Your task to perform on an android device: Clear the shopping cart on target. Search for "sony triple a" on target, select the first entry, add it to the cart, then select checkout. Image 0: 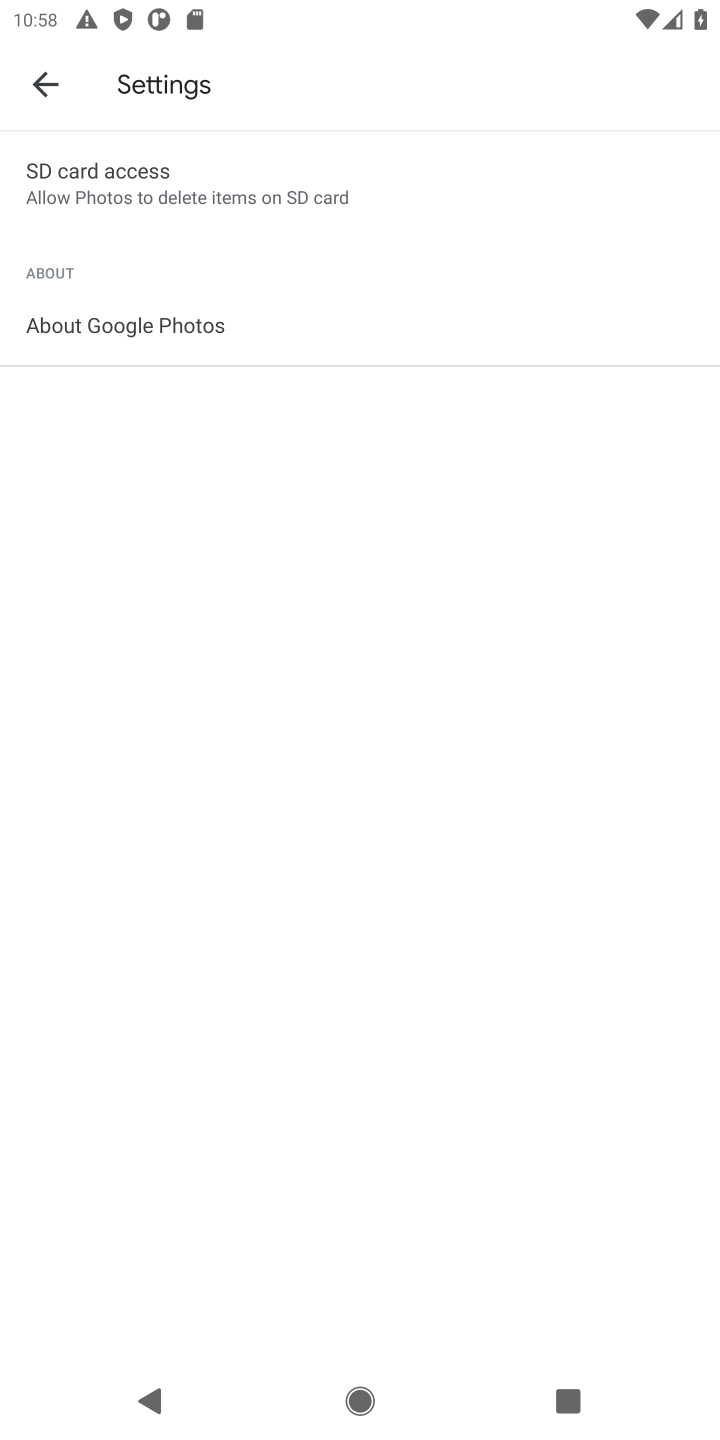
Step 0: press home button
Your task to perform on an android device: Clear the shopping cart on target. Search for "sony triple a" on target, select the first entry, add it to the cart, then select checkout. Image 1: 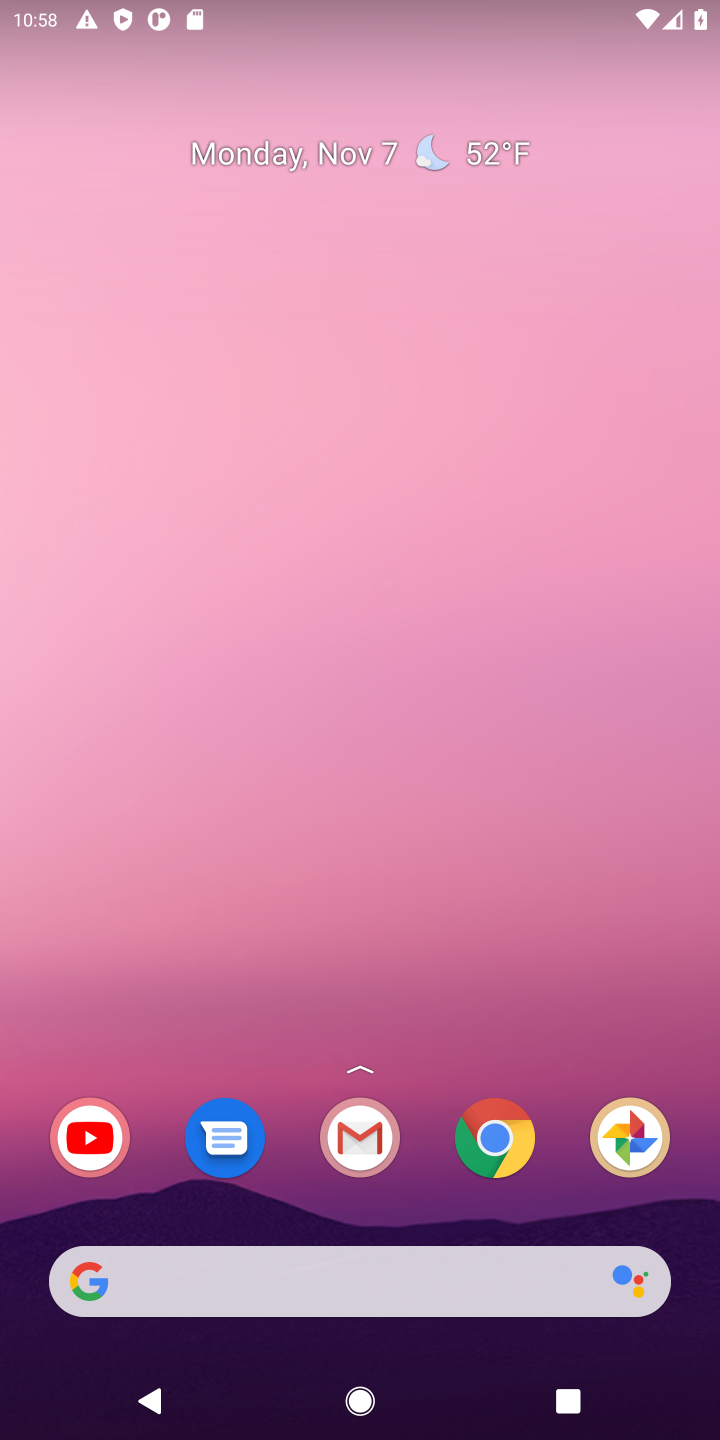
Step 1: click (516, 1157)
Your task to perform on an android device: Clear the shopping cart on target. Search for "sony triple a" on target, select the first entry, add it to the cart, then select checkout. Image 2: 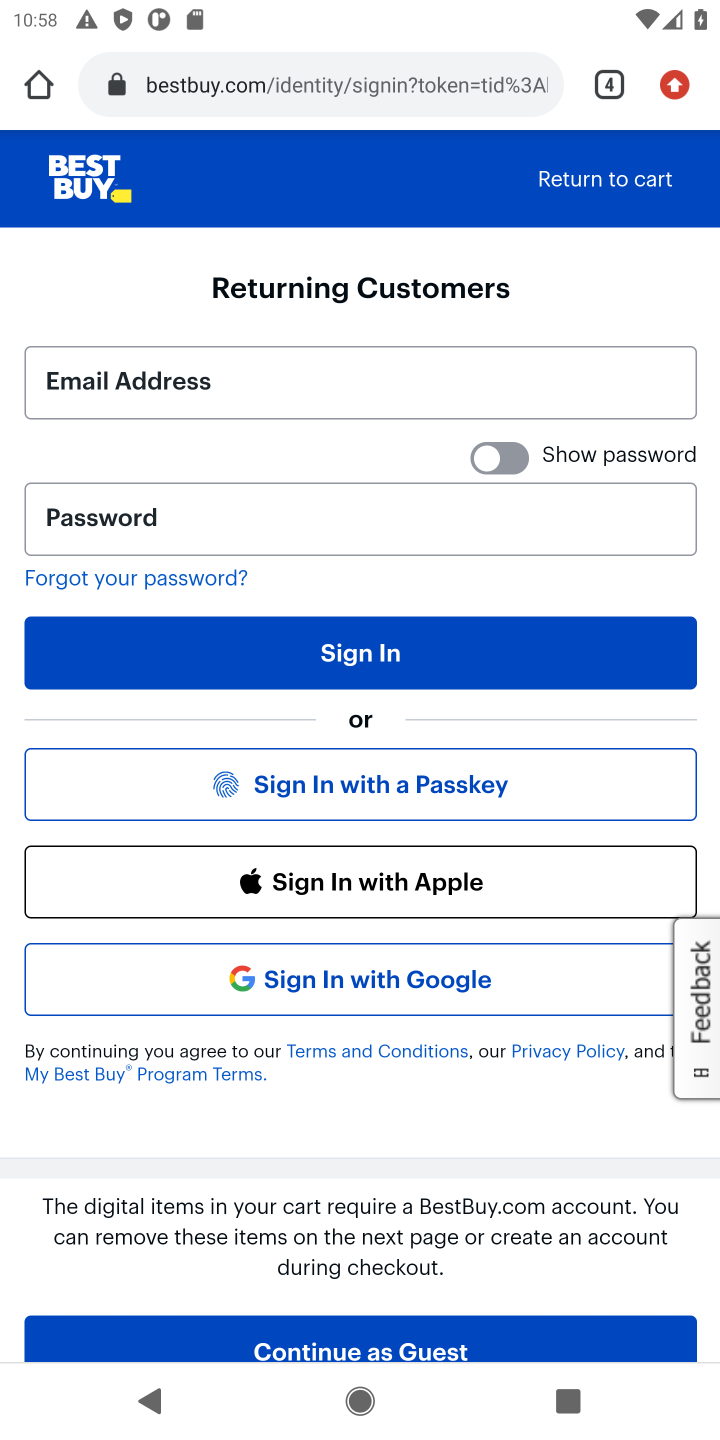
Step 2: click (328, 77)
Your task to perform on an android device: Clear the shopping cart on target. Search for "sony triple a" on target, select the first entry, add it to the cart, then select checkout. Image 3: 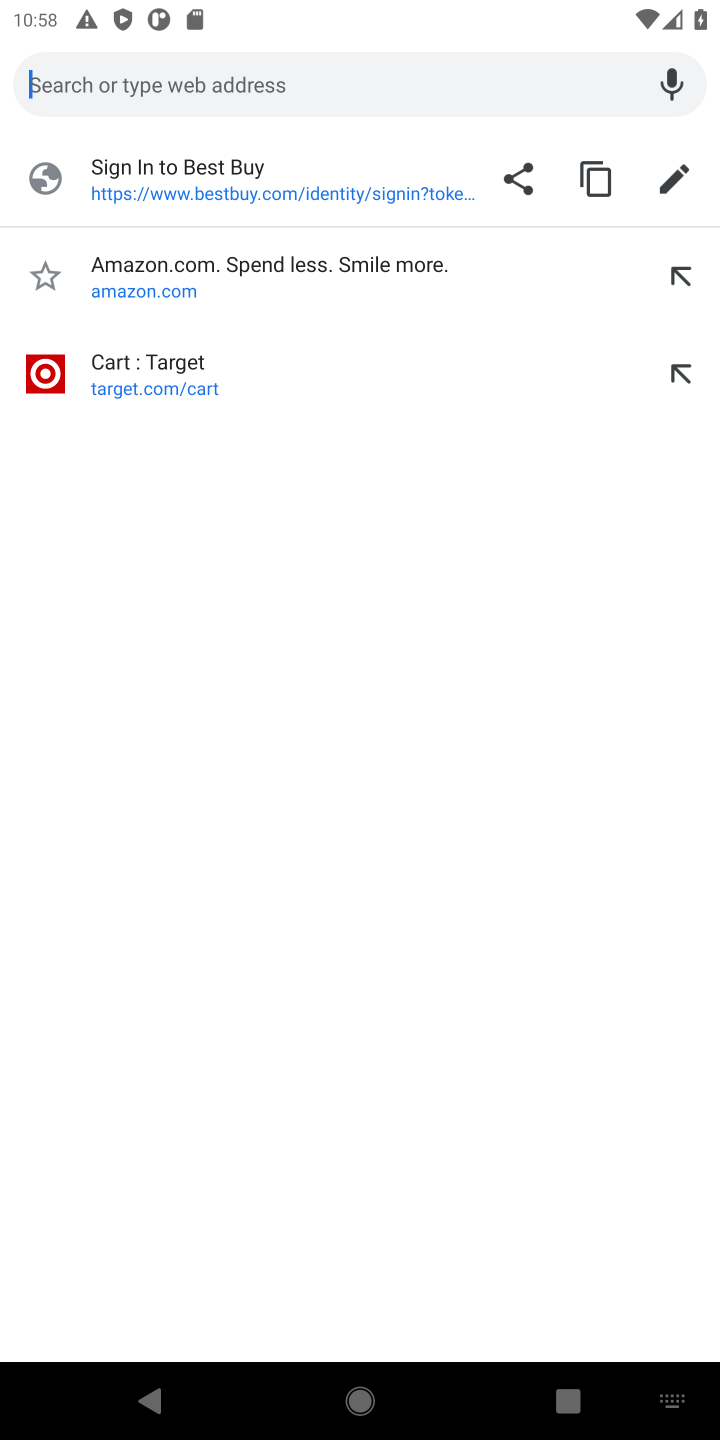
Step 3: click (166, 384)
Your task to perform on an android device: Clear the shopping cart on target. Search for "sony triple a" on target, select the first entry, add it to the cart, then select checkout. Image 4: 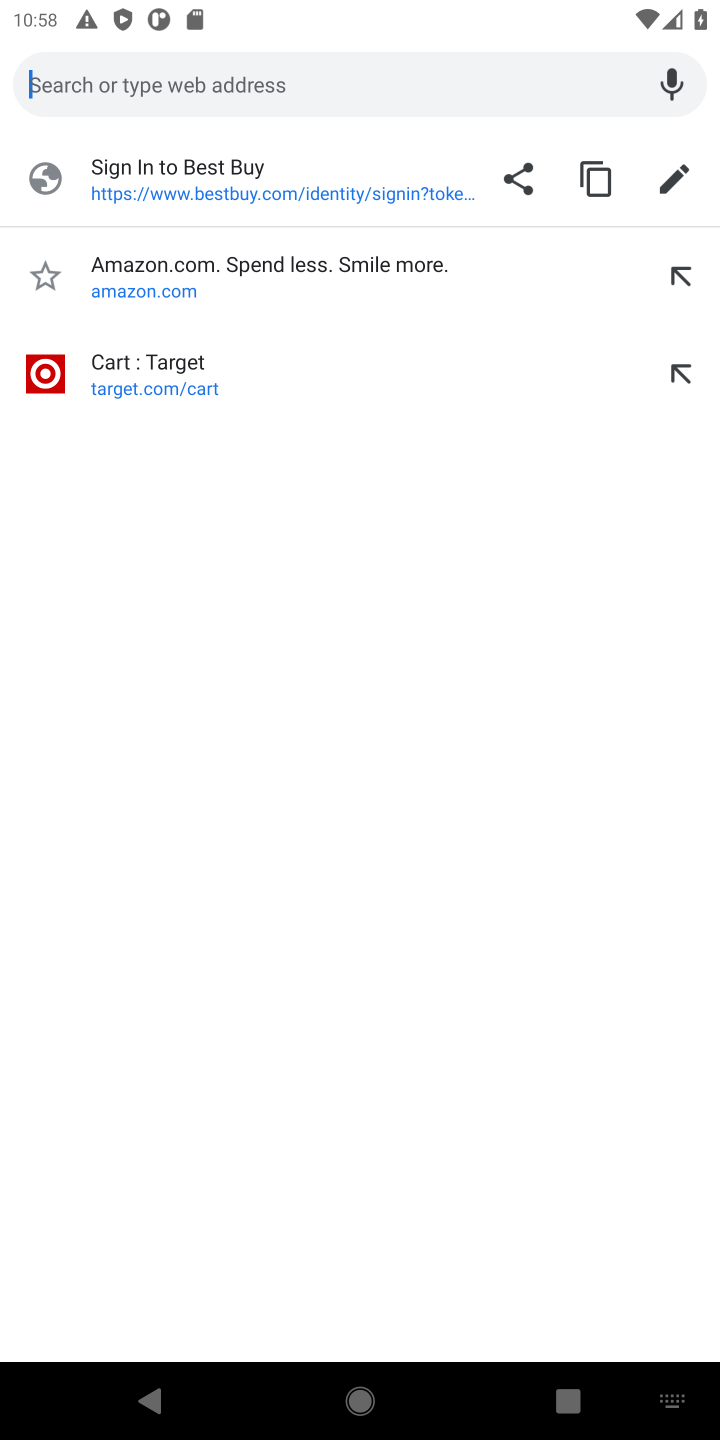
Step 4: type "target"
Your task to perform on an android device: Clear the shopping cart on target. Search for "sony triple a" on target, select the first entry, add it to the cart, then select checkout. Image 5: 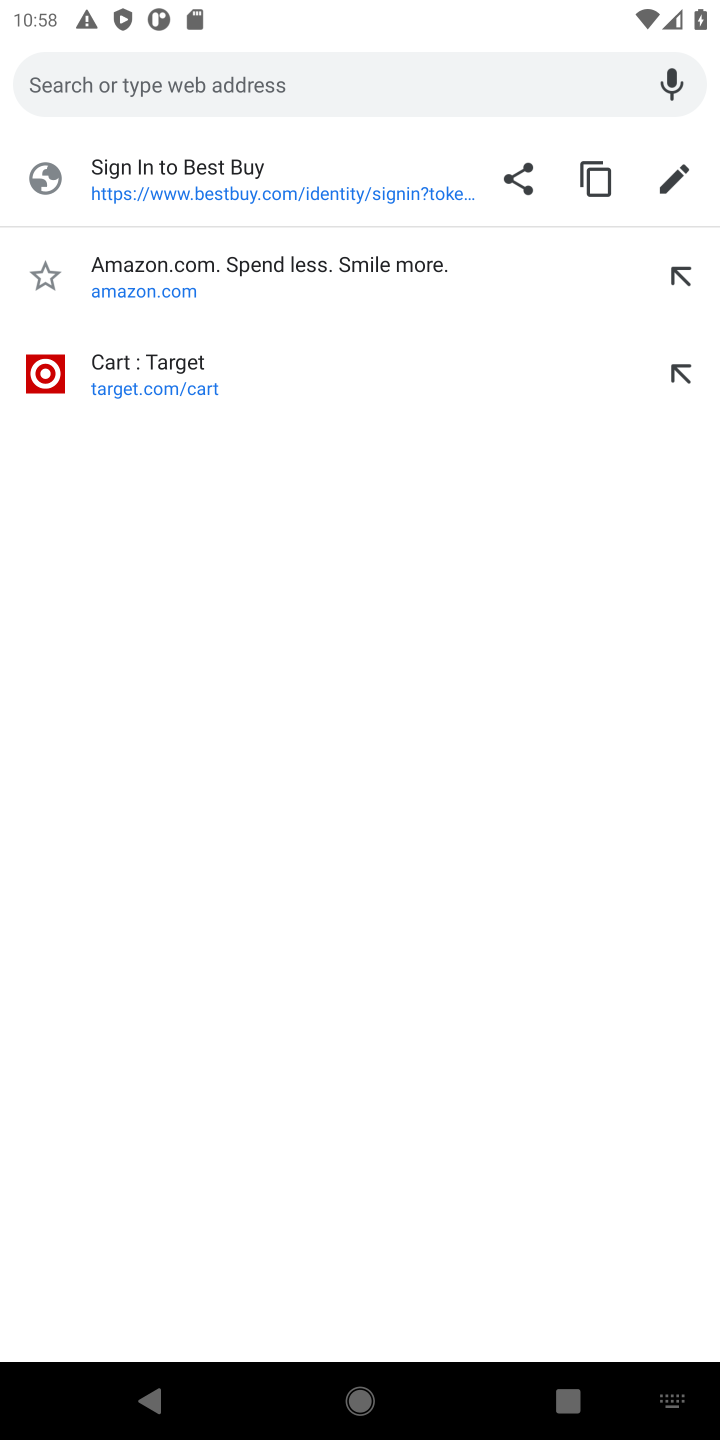
Step 5: click (166, 384)
Your task to perform on an android device: Clear the shopping cart on target. Search for "sony triple a" on target, select the first entry, add it to the cart, then select checkout. Image 6: 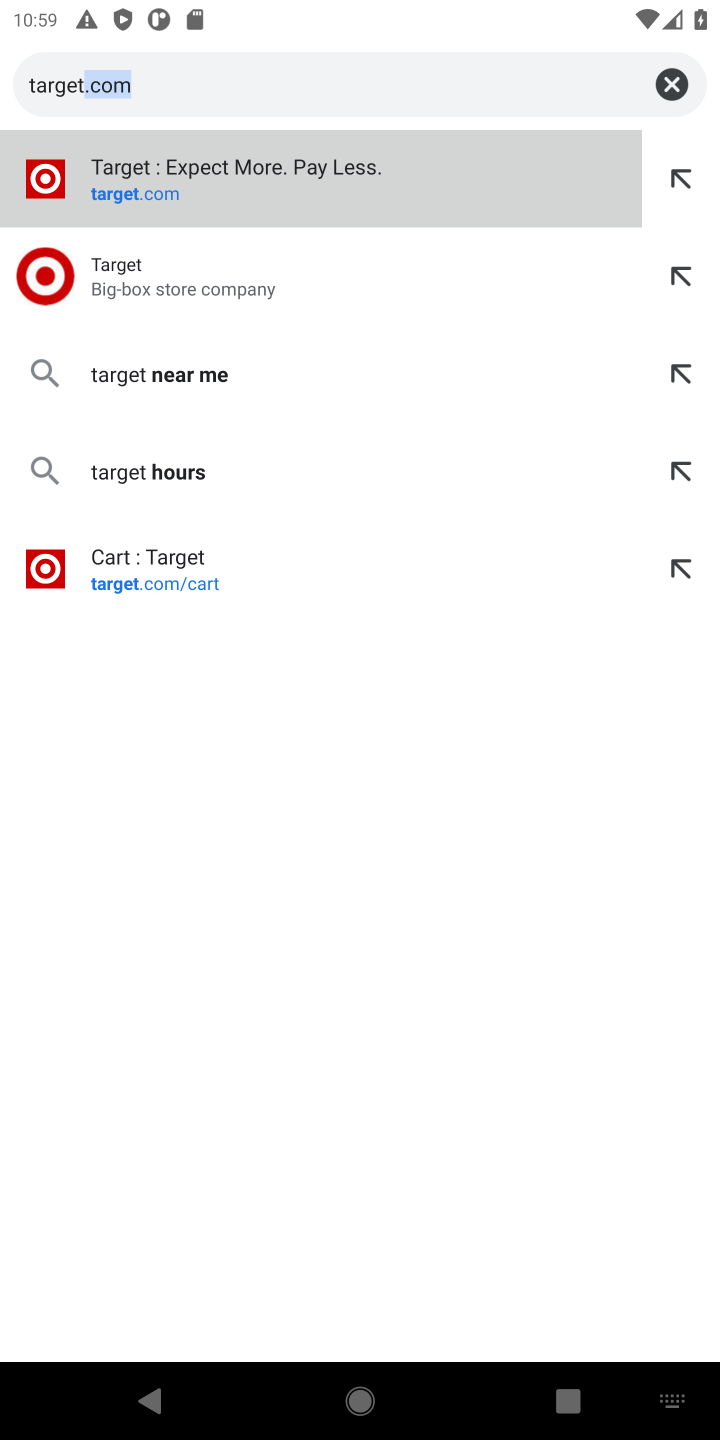
Step 6: click (119, 285)
Your task to perform on an android device: Clear the shopping cart on target. Search for "sony triple a" on target, select the first entry, add it to the cart, then select checkout. Image 7: 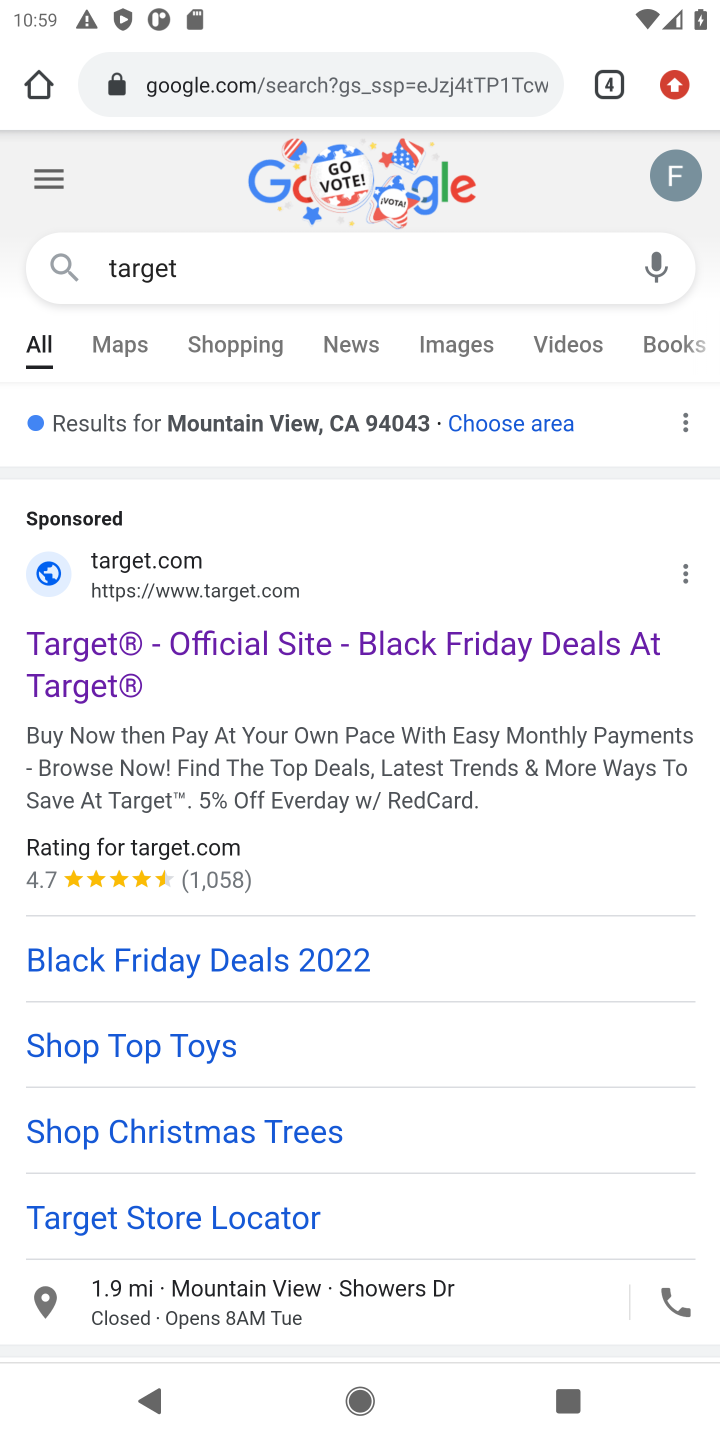
Step 7: drag from (274, 901) to (377, 284)
Your task to perform on an android device: Clear the shopping cart on target. Search for "sony triple a" on target, select the first entry, add it to the cart, then select checkout. Image 8: 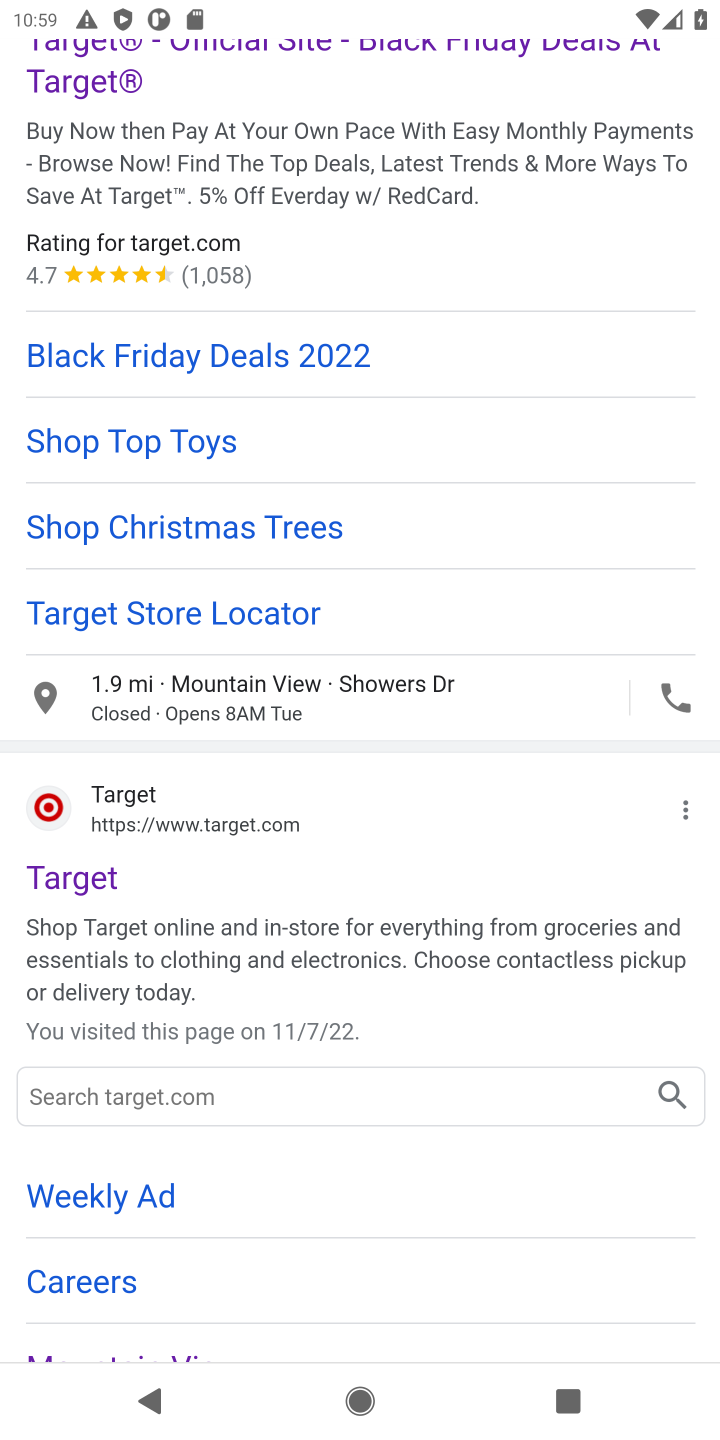
Step 8: click (94, 876)
Your task to perform on an android device: Clear the shopping cart on target. Search for "sony triple a" on target, select the first entry, add it to the cart, then select checkout. Image 9: 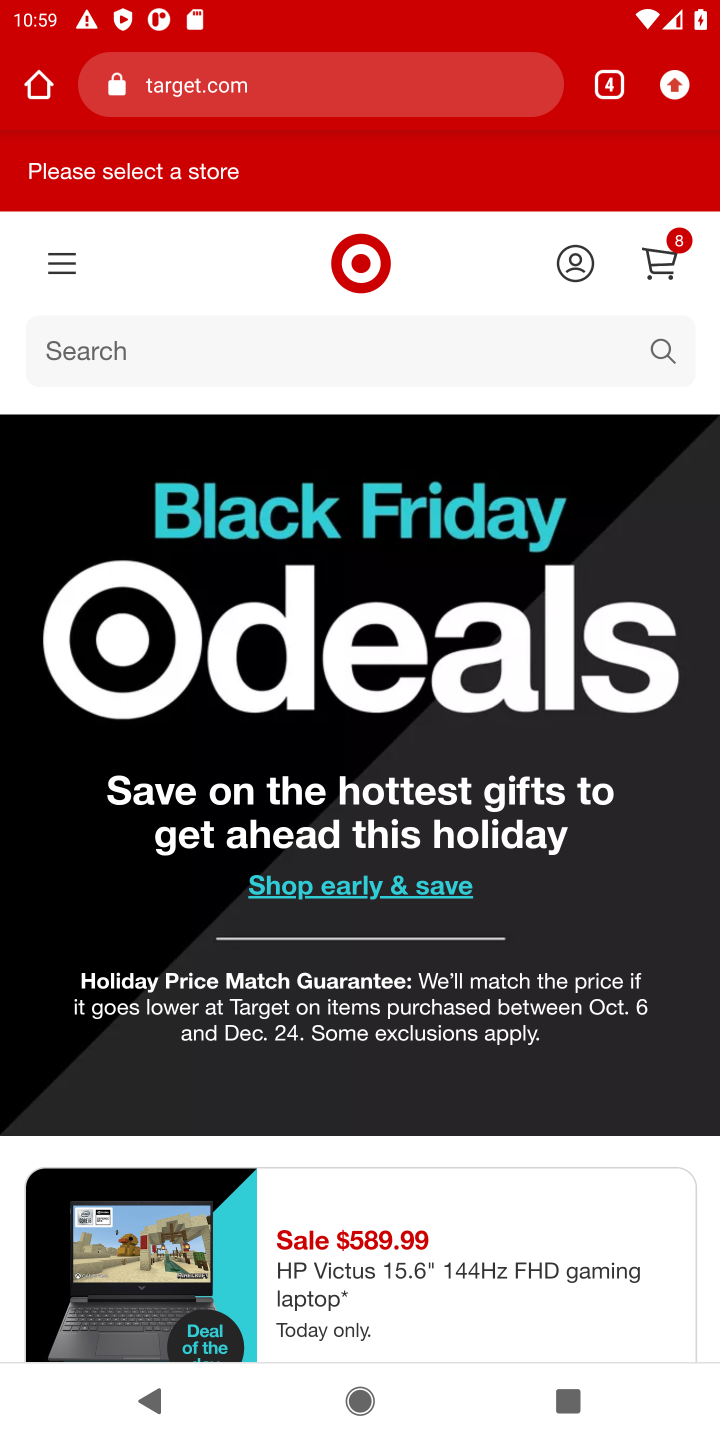
Step 9: click (184, 348)
Your task to perform on an android device: Clear the shopping cart on target. Search for "sony triple a" on target, select the first entry, add it to the cart, then select checkout. Image 10: 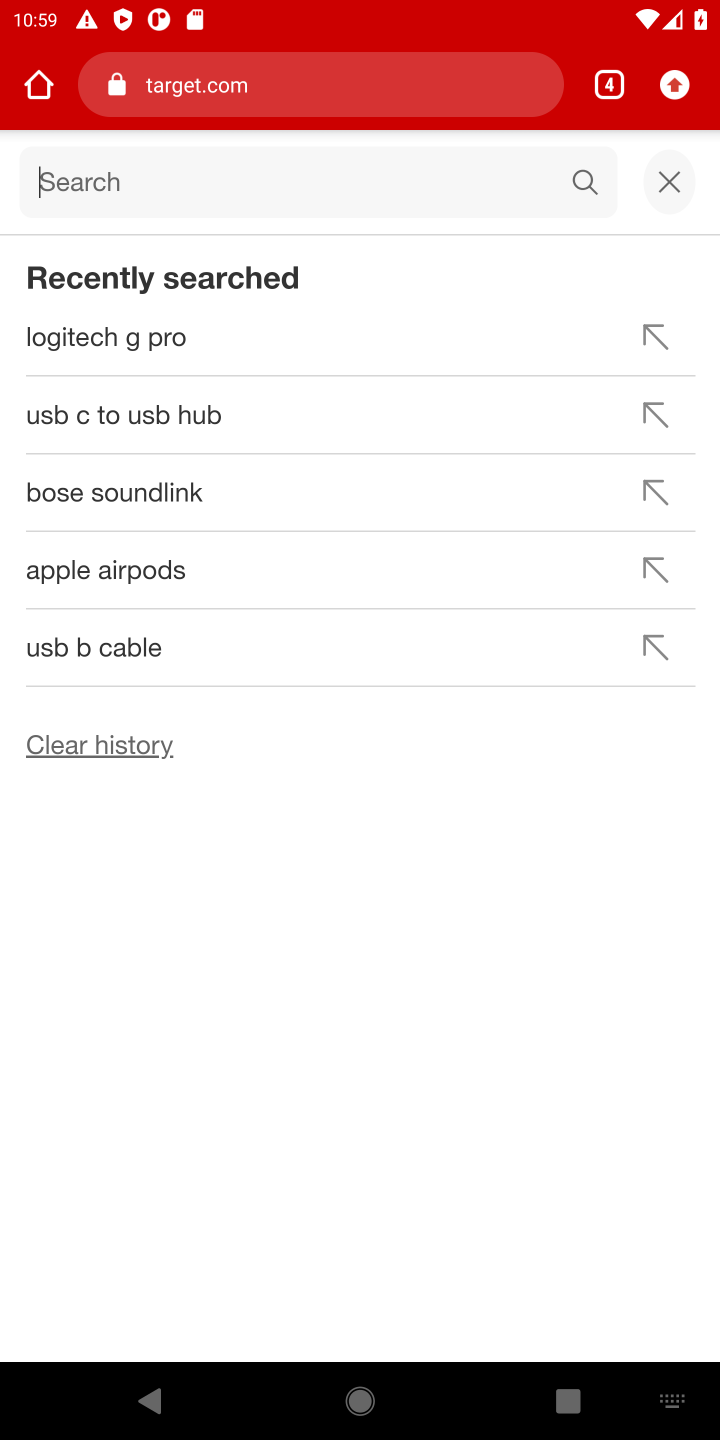
Step 10: type "sony triple"
Your task to perform on an android device: Clear the shopping cart on target. Search for "sony triple a" on target, select the first entry, add it to the cart, then select checkout. Image 11: 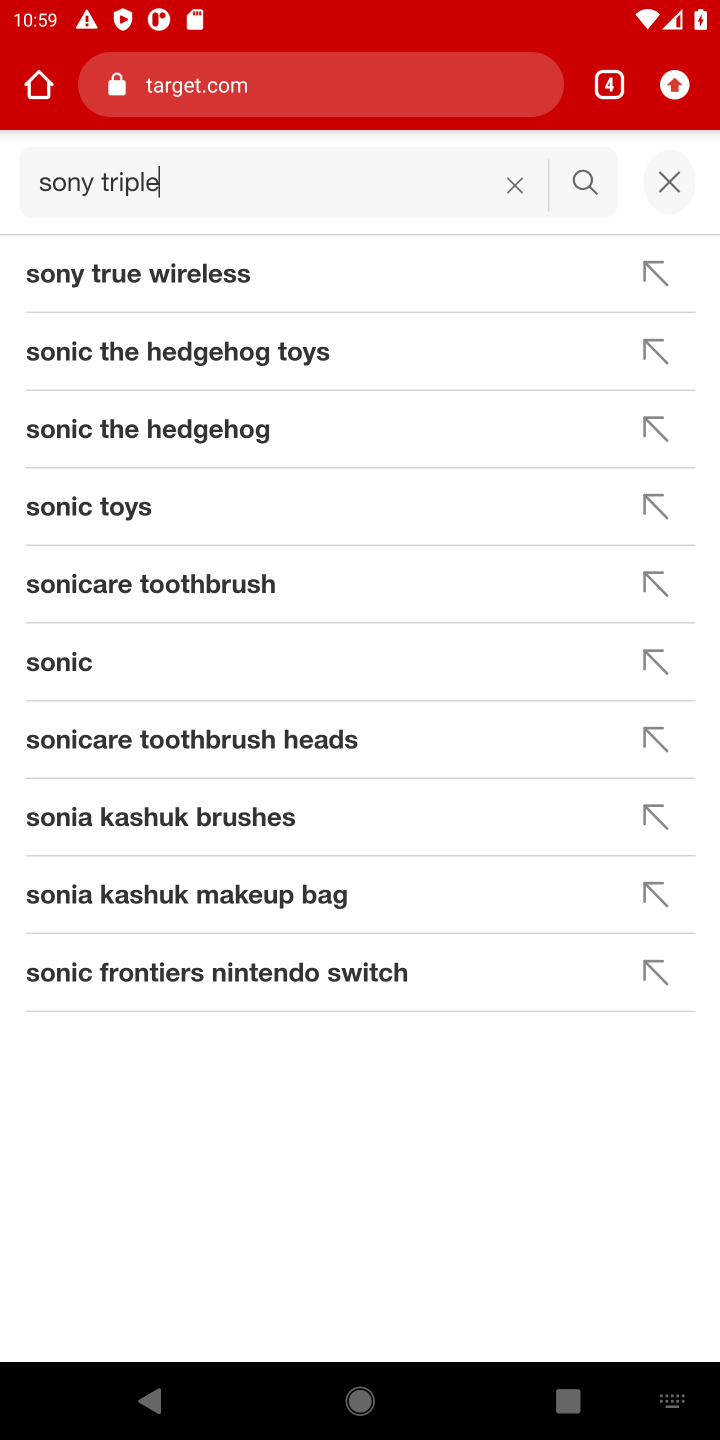
Step 11: click (66, 263)
Your task to perform on an android device: Clear the shopping cart on target. Search for "sony triple a" on target, select the first entry, add it to the cart, then select checkout. Image 12: 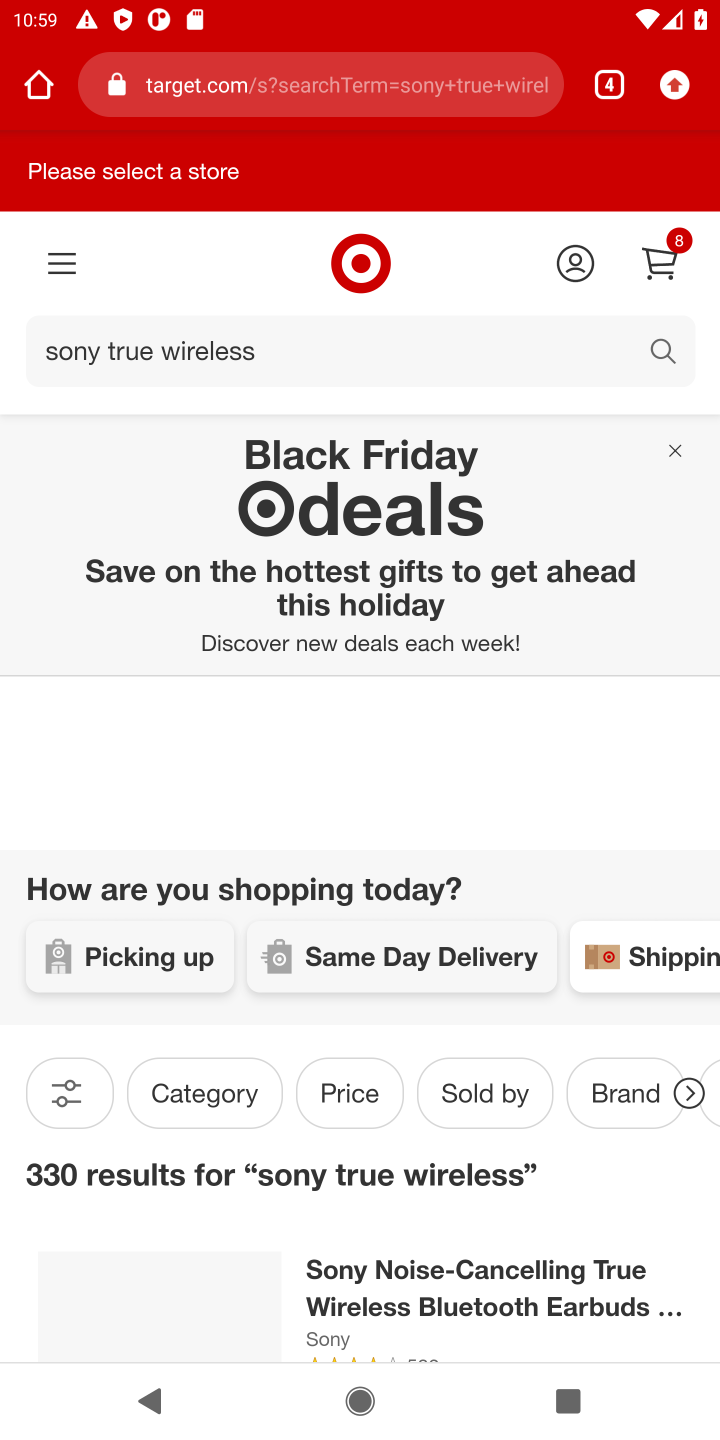
Step 12: drag from (267, 1018) to (339, 574)
Your task to perform on an android device: Clear the shopping cart on target. Search for "sony triple a" on target, select the first entry, add it to the cart, then select checkout. Image 13: 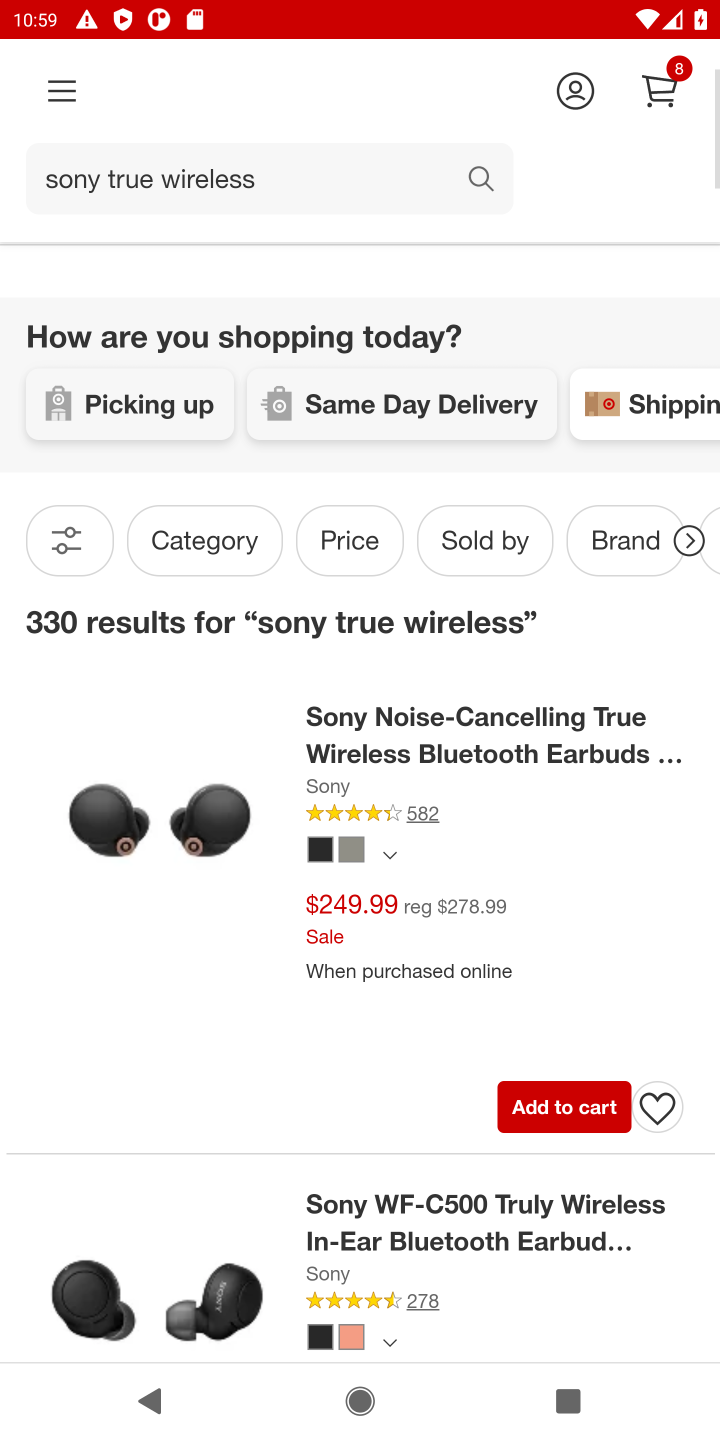
Step 13: drag from (255, 1076) to (329, 712)
Your task to perform on an android device: Clear the shopping cart on target. Search for "sony triple a" on target, select the first entry, add it to the cart, then select checkout. Image 14: 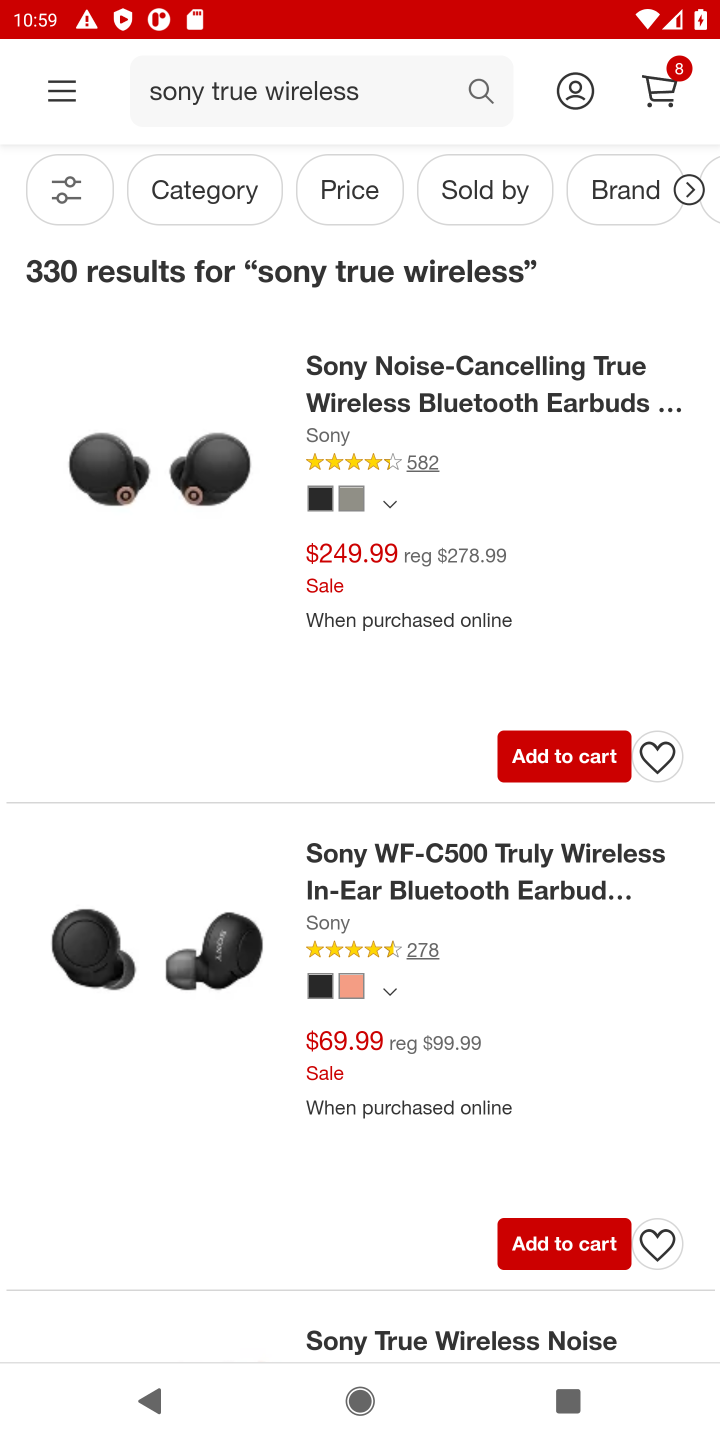
Step 14: click (431, 868)
Your task to perform on an android device: Clear the shopping cart on target. Search for "sony triple a" on target, select the first entry, add it to the cart, then select checkout. Image 15: 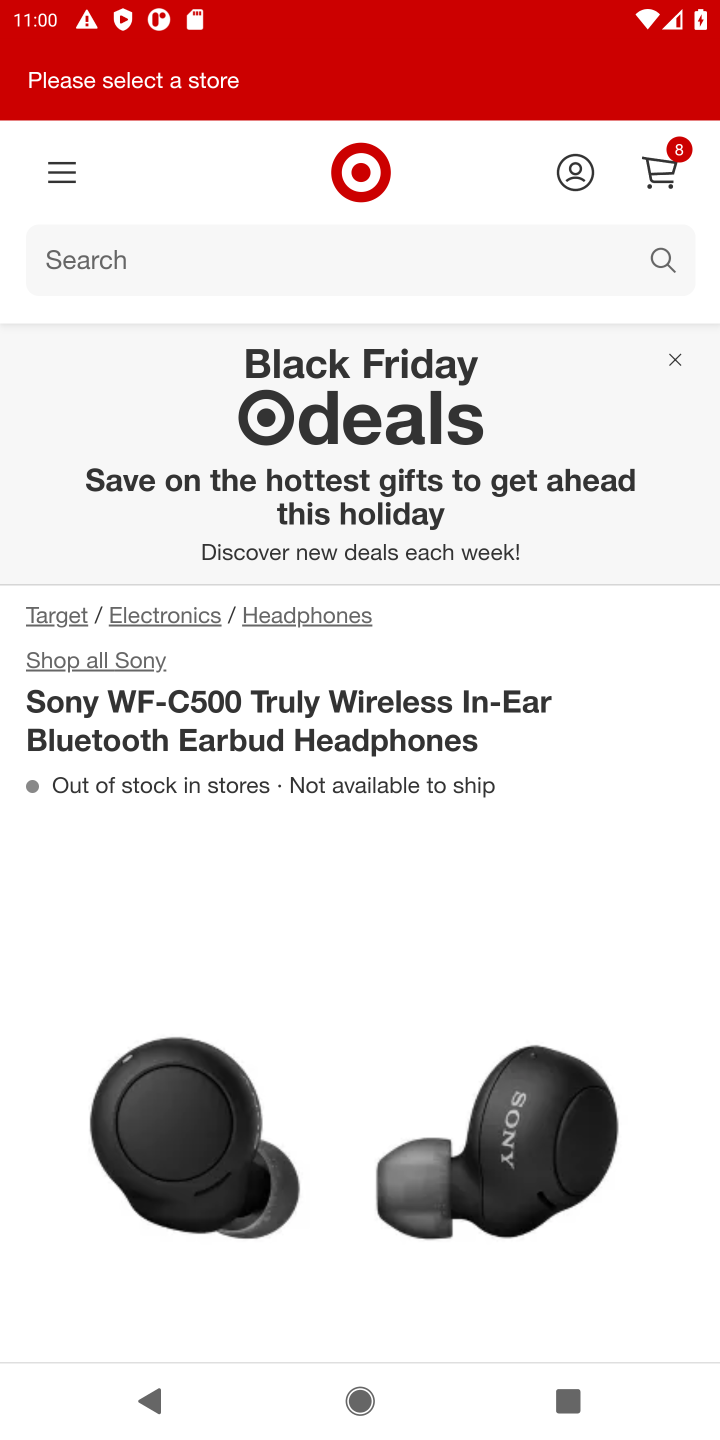
Step 15: drag from (398, 1180) to (429, 397)
Your task to perform on an android device: Clear the shopping cart on target. Search for "sony triple a" on target, select the first entry, add it to the cart, then select checkout. Image 16: 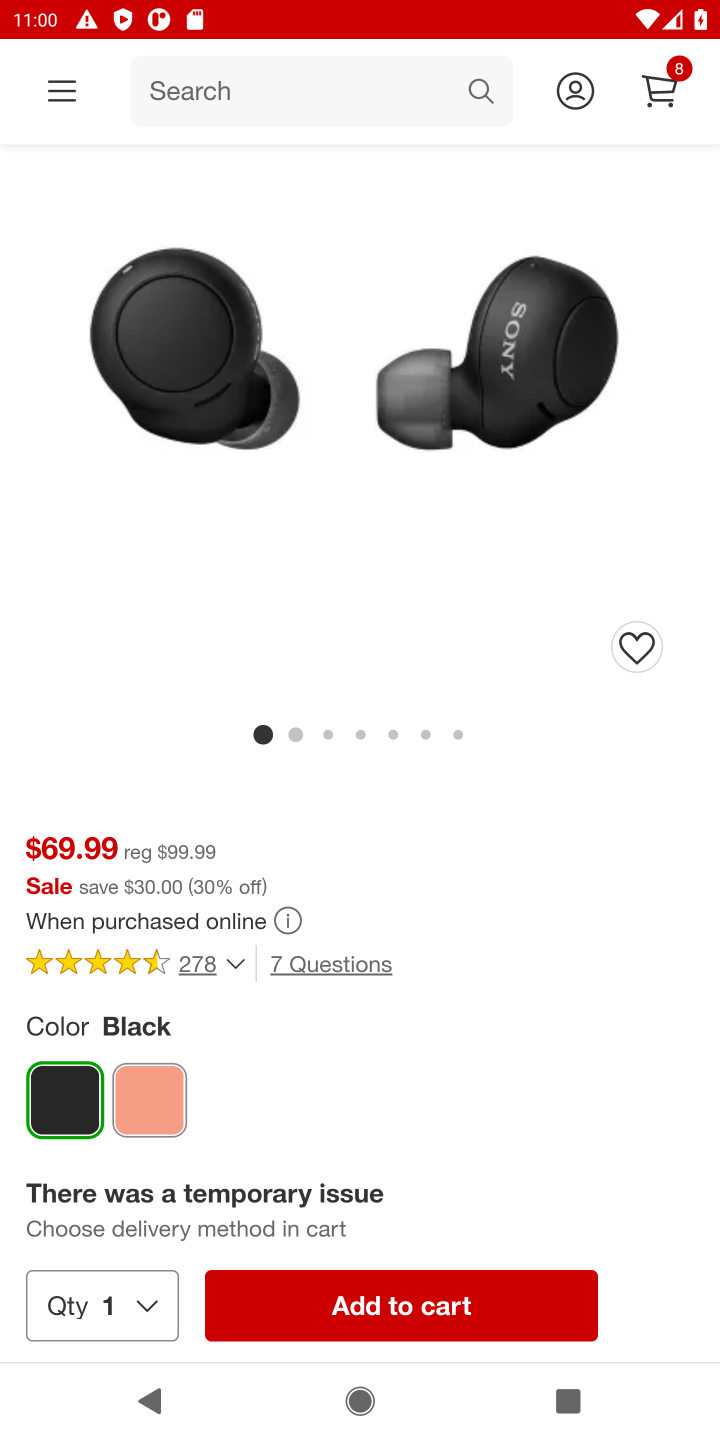
Step 16: click (409, 1299)
Your task to perform on an android device: Clear the shopping cart on target. Search for "sony triple a" on target, select the first entry, add it to the cart, then select checkout. Image 17: 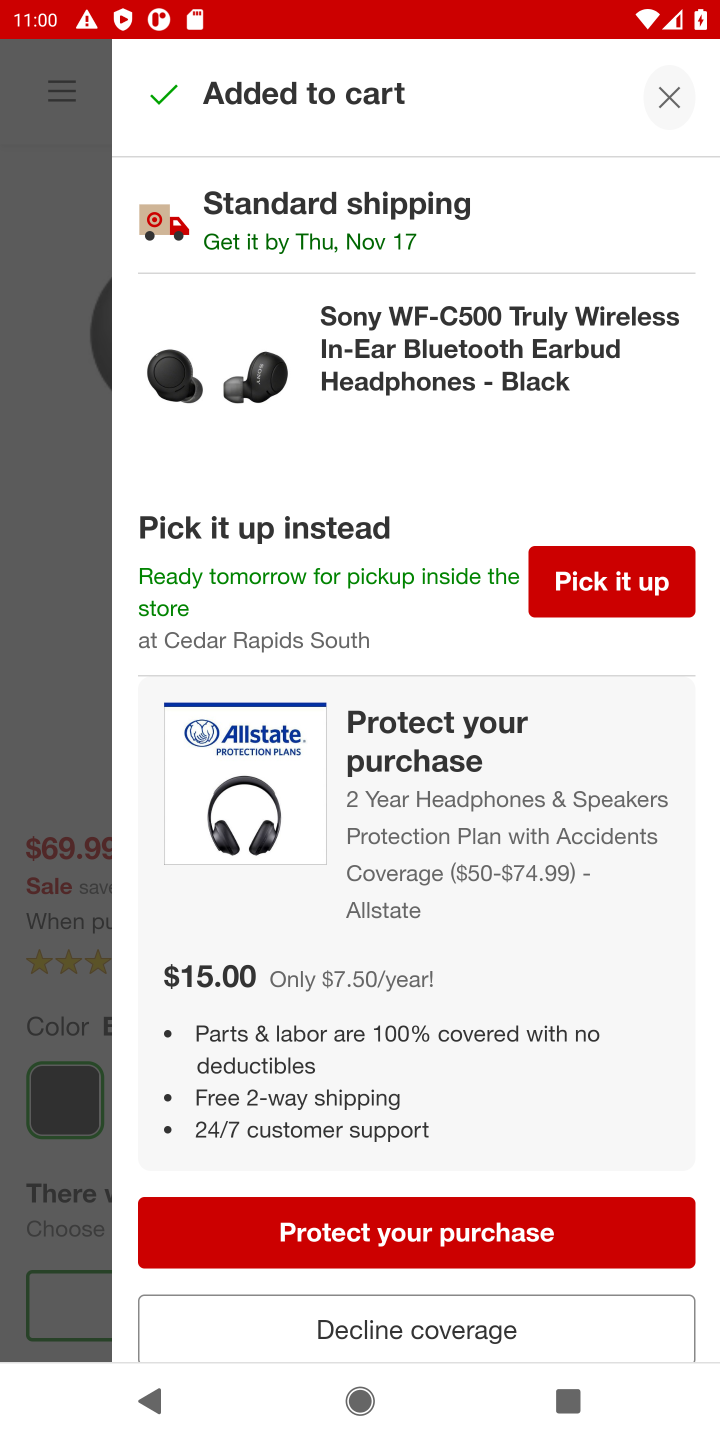
Step 17: click (417, 1251)
Your task to perform on an android device: Clear the shopping cart on target. Search for "sony triple a" on target, select the first entry, add it to the cart, then select checkout. Image 18: 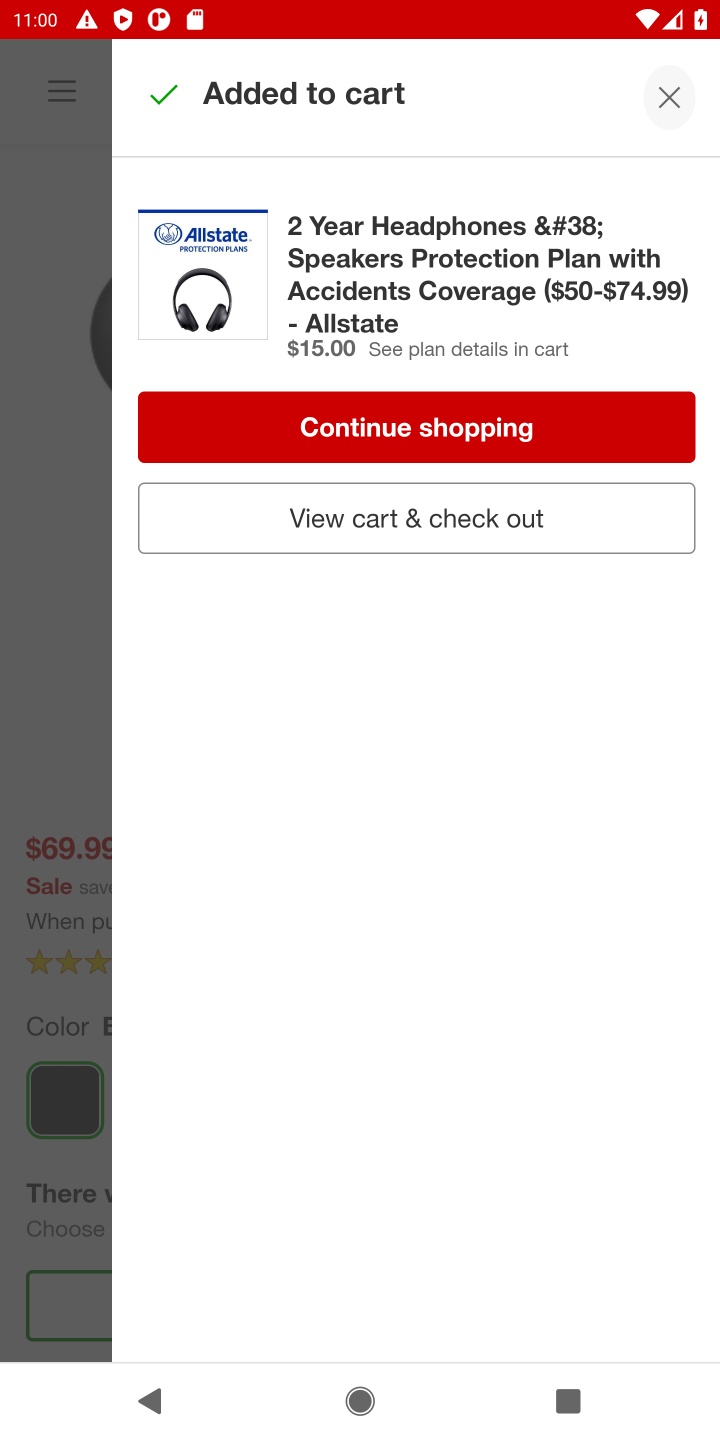
Step 18: click (373, 518)
Your task to perform on an android device: Clear the shopping cart on target. Search for "sony triple a" on target, select the first entry, add it to the cart, then select checkout. Image 19: 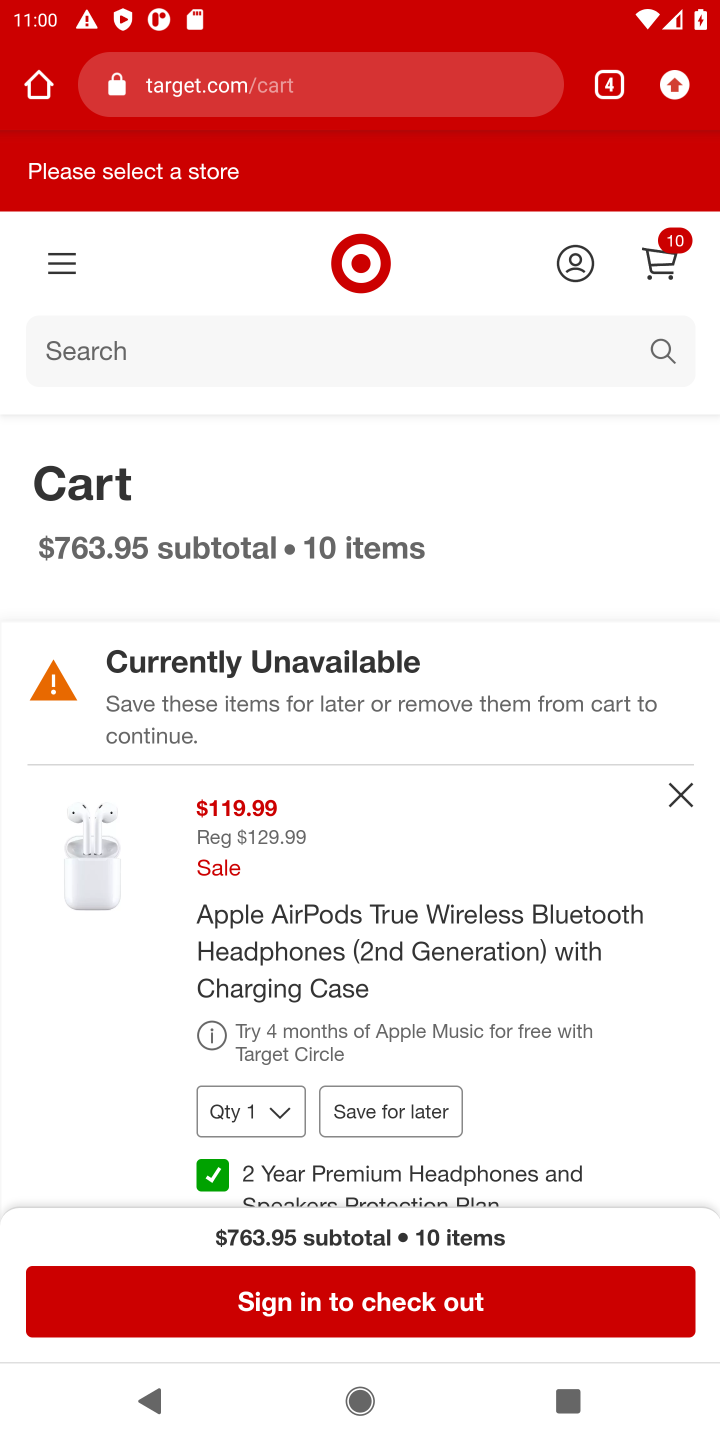
Step 19: click (372, 1309)
Your task to perform on an android device: Clear the shopping cart on target. Search for "sony triple a" on target, select the first entry, add it to the cart, then select checkout. Image 20: 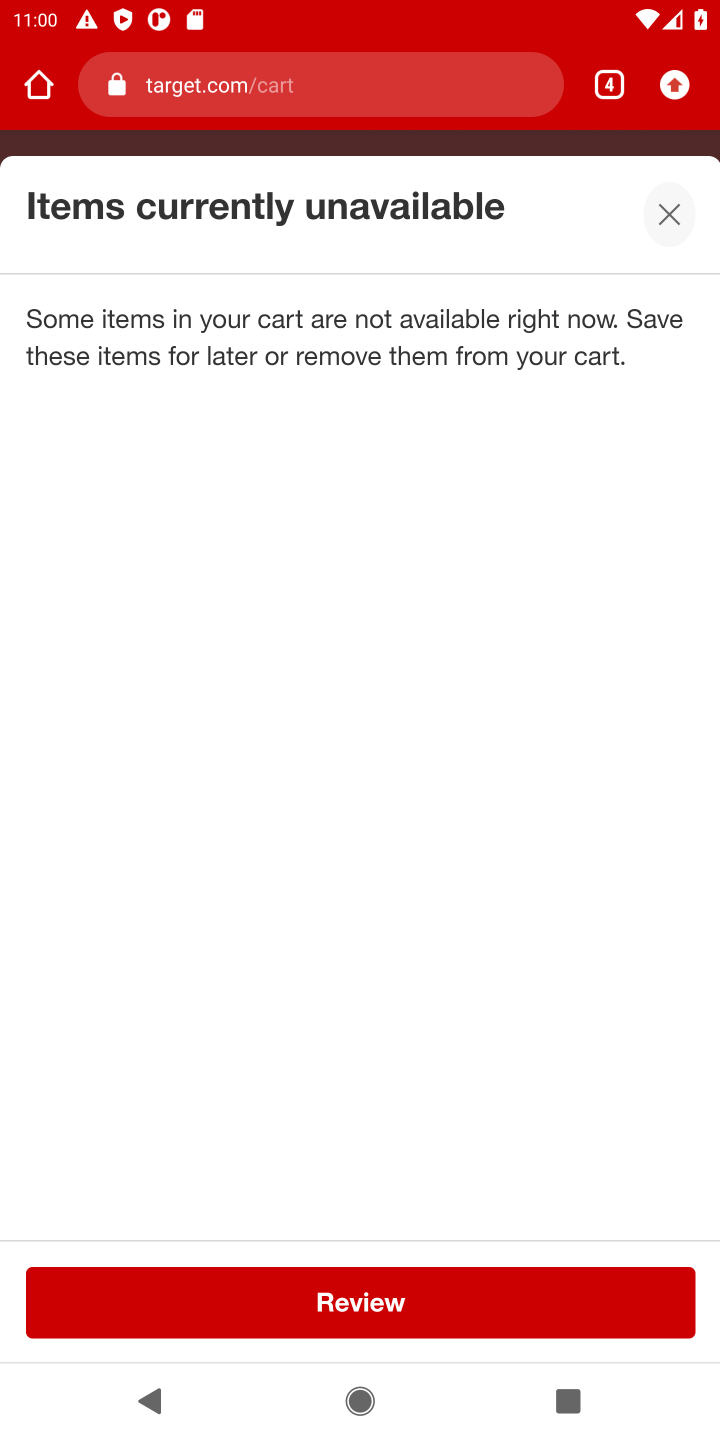
Step 20: task complete